Your task to perform on an android device: toggle translation in the chrome app Image 0: 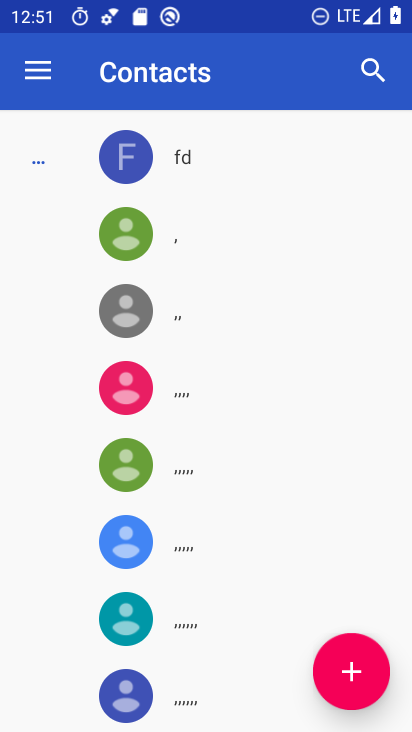
Step 0: press back button
Your task to perform on an android device: toggle translation in the chrome app Image 1: 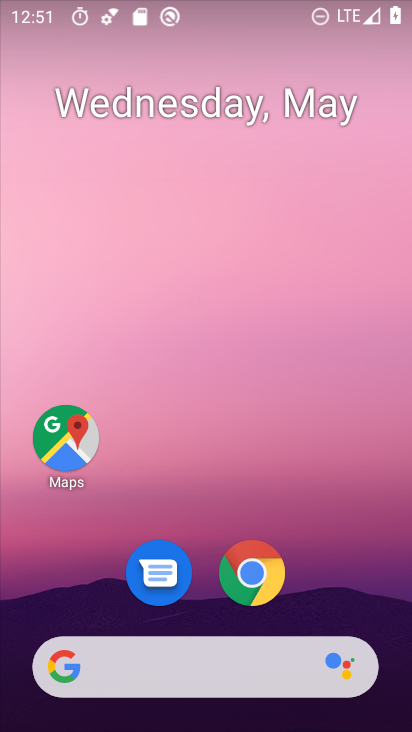
Step 1: click (245, 557)
Your task to perform on an android device: toggle translation in the chrome app Image 2: 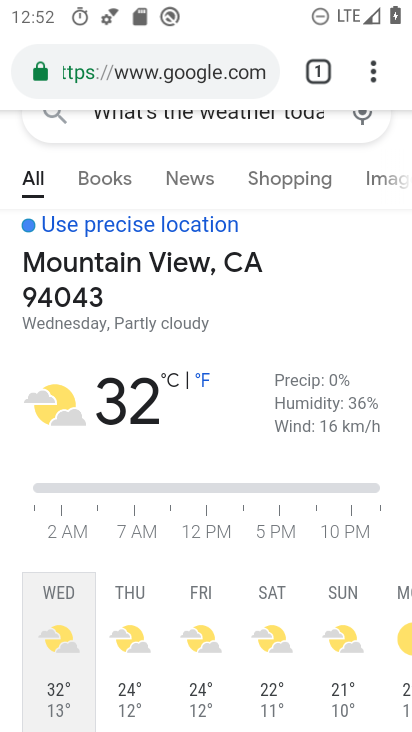
Step 2: drag from (371, 70) to (147, 541)
Your task to perform on an android device: toggle translation in the chrome app Image 3: 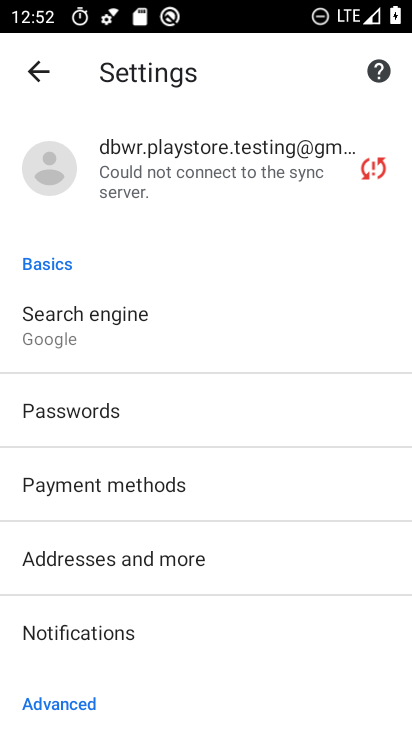
Step 3: drag from (205, 600) to (194, 216)
Your task to perform on an android device: toggle translation in the chrome app Image 4: 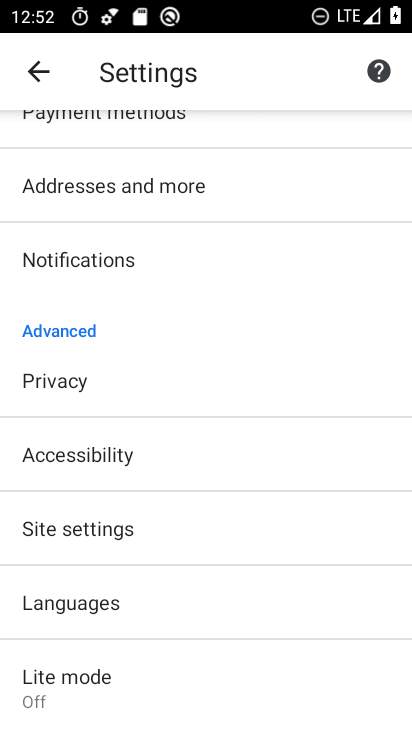
Step 4: click (132, 613)
Your task to perform on an android device: toggle translation in the chrome app Image 5: 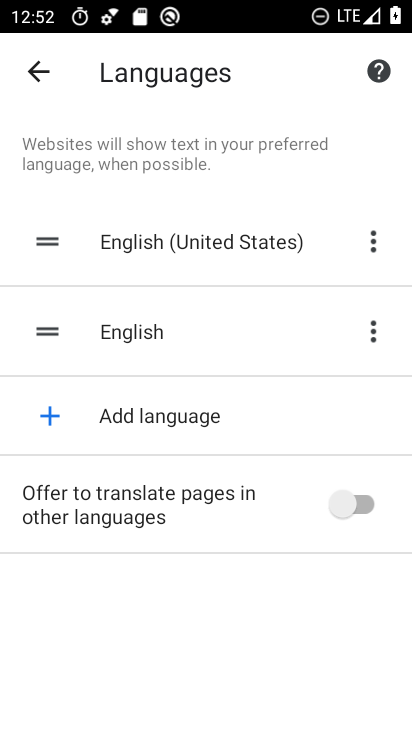
Step 5: click (365, 501)
Your task to perform on an android device: toggle translation in the chrome app Image 6: 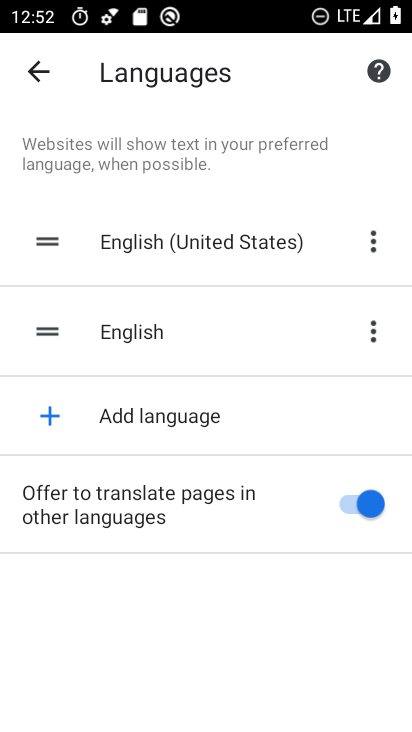
Step 6: task complete